Your task to perform on an android device: Turn off the flashlight Image 0: 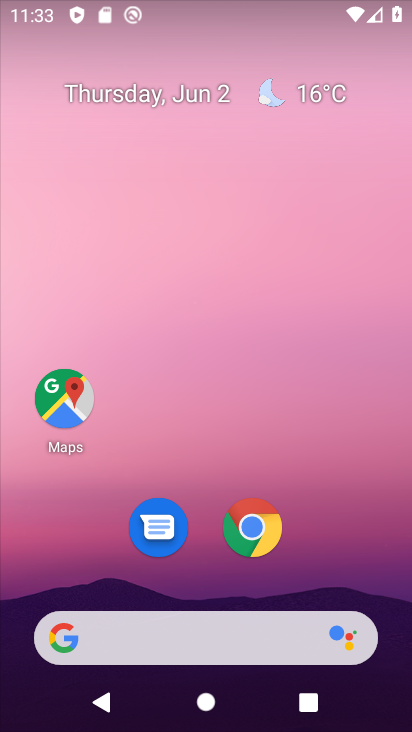
Step 0: drag from (180, 34) to (223, 320)
Your task to perform on an android device: Turn off the flashlight Image 1: 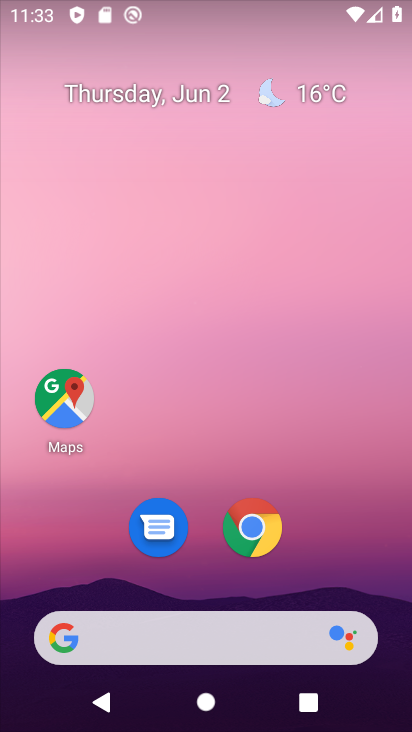
Step 1: task complete